Your task to perform on an android device: Do I have any events this weekend? Image 0: 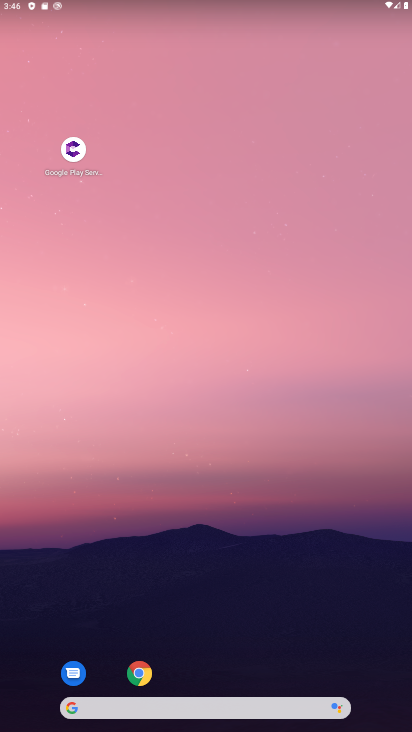
Step 0: drag from (230, 658) to (253, 52)
Your task to perform on an android device: Do I have any events this weekend? Image 1: 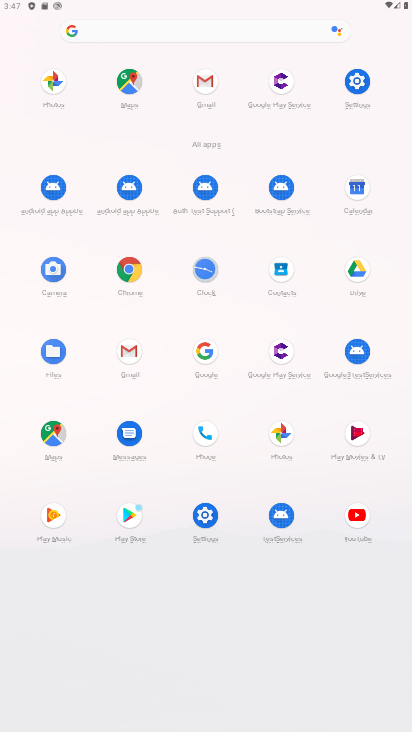
Step 1: click (132, 350)
Your task to perform on an android device: Do I have any events this weekend? Image 2: 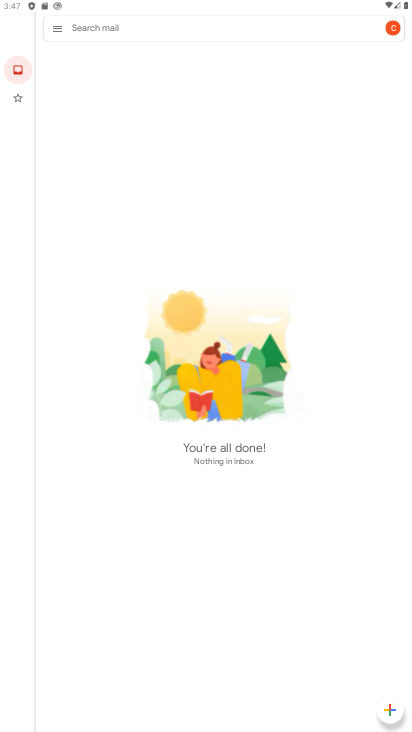
Step 2: press home button
Your task to perform on an android device: Do I have any events this weekend? Image 3: 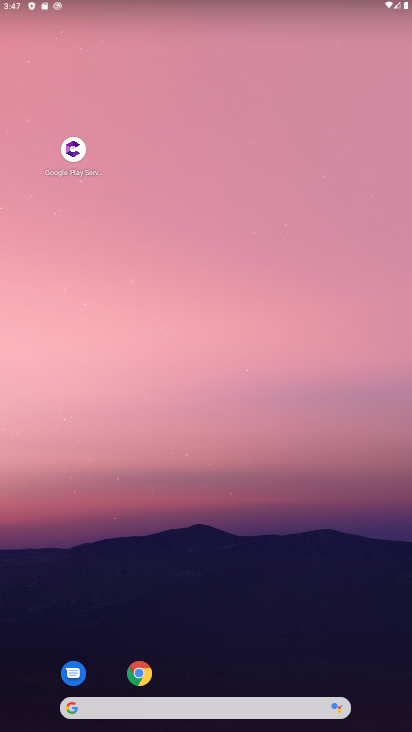
Step 3: drag from (221, 658) to (236, 0)
Your task to perform on an android device: Do I have any events this weekend? Image 4: 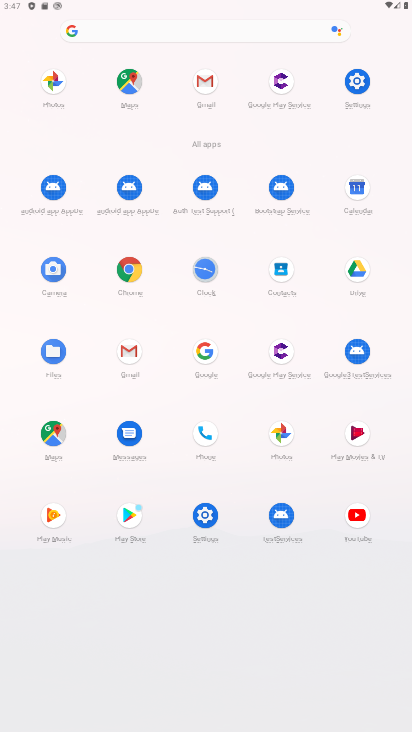
Step 4: click (359, 185)
Your task to perform on an android device: Do I have any events this weekend? Image 5: 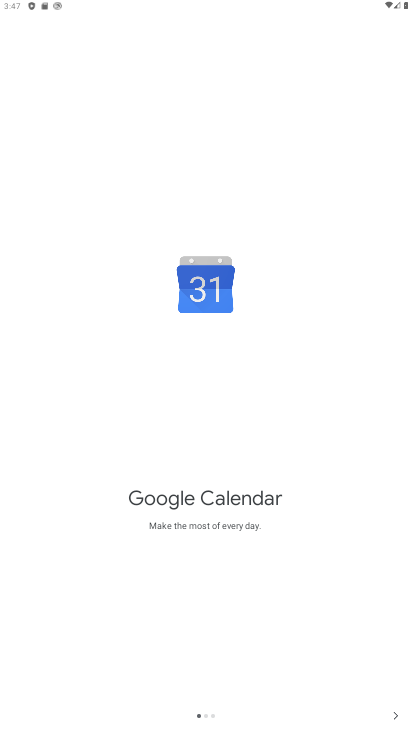
Step 5: click (390, 714)
Your task to perform on an android device: Do I have any events this weekend? Image 6: 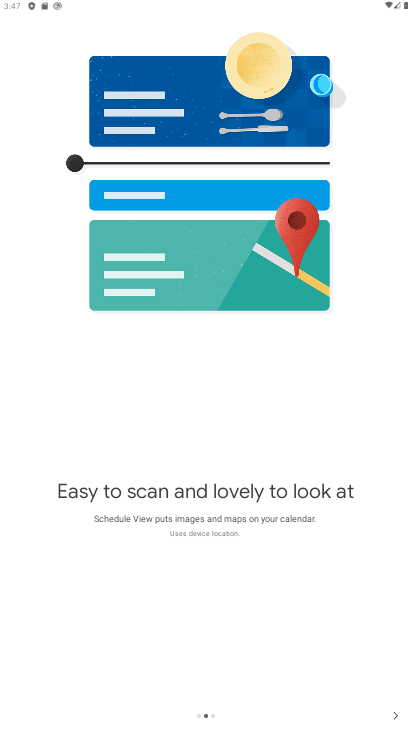
Step 6: click (392, 715)
Your task to perform on an android device: Do I have any events this weekend? Image 7: 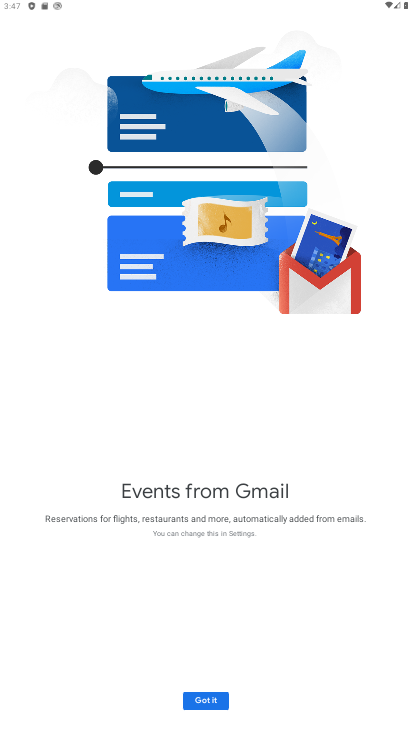
Step 7: click (213, 696)
Your task to perform on an android device: Do I have any events this weekend? Image 8: 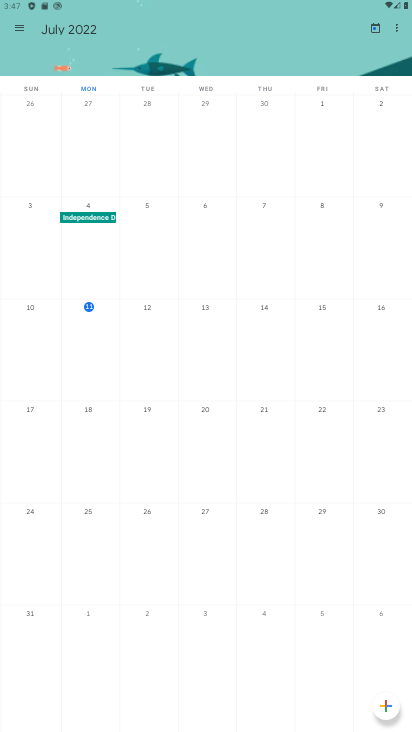
Step 8: click (321, 305)
Your task to perform on an android device: Do I have any events this weekend? Image 9: 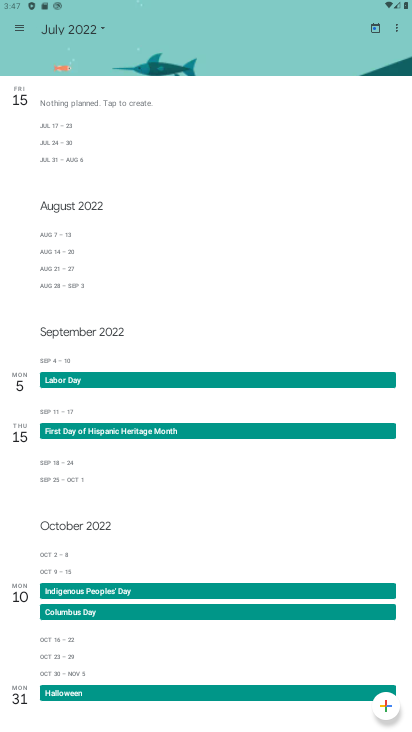
Step 9: task complete